Your task to perform on an android device: turn off notifications settings in the gmail app Image 0: 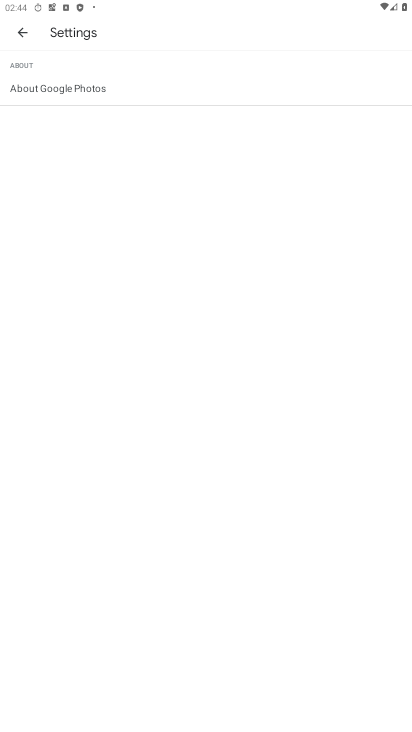
Step 0: press home button
Your task to perform on an android device: turn off notifications settings in the gmail app Image 1: 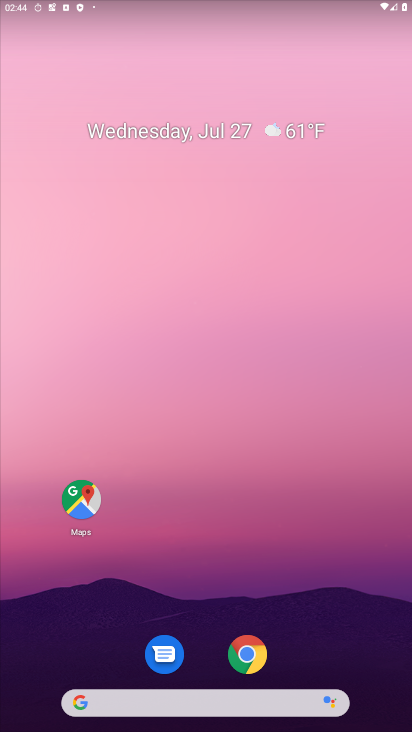
Step 1: drag from (169, 714) to (222, 0)
Your task to perform on an android device: turn off notifications settings in the gmail app Image 2: 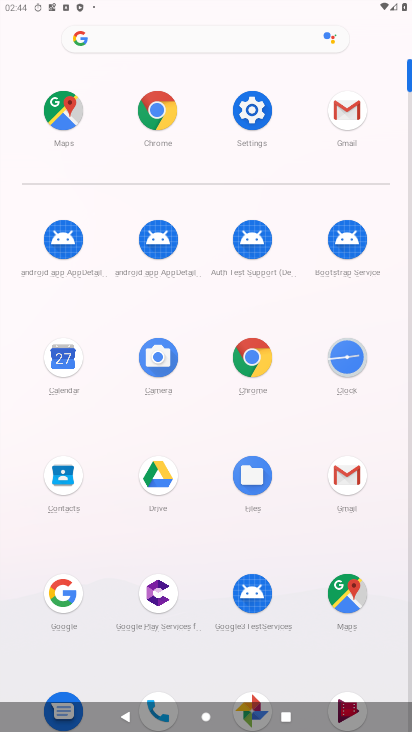
Step 2: click (338, 472)
Your task to perform on an android device: turn off notifications settings in the gmail app Image 3: 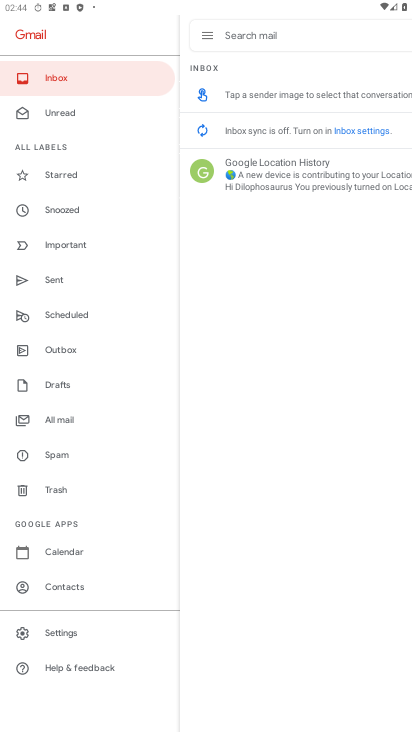
Step 3: click (90, 639)
Your task to perform on an android device: turn off notifications settings in the gmail app Image 4: 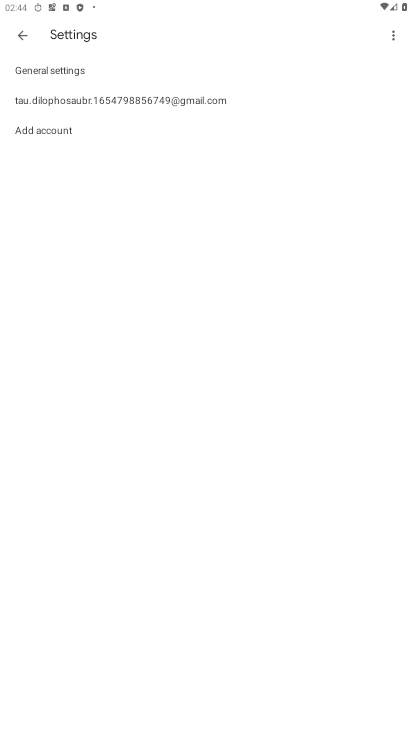
Step 4: click (150, 97)
Your task to perform on an android device: turn off notifications settings in the gmail app Image 5: 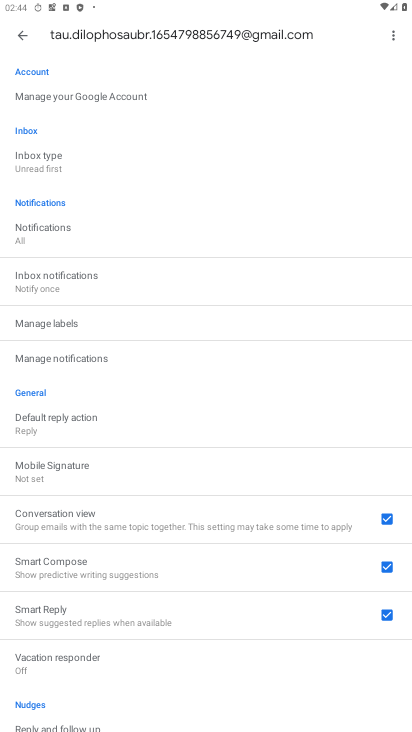
Step 5: click (84, 250)
Your task to perform on an android device: turn off notifications settings in the gmail app Image 6: 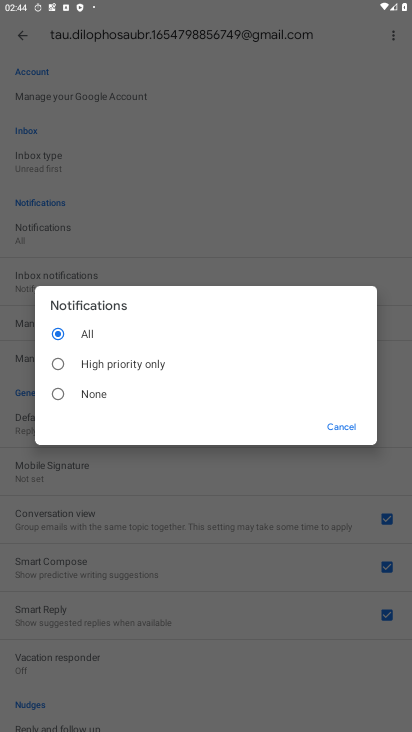
Step 6: task complete